Your task to perform on an android device: turn off wifi Image 0: 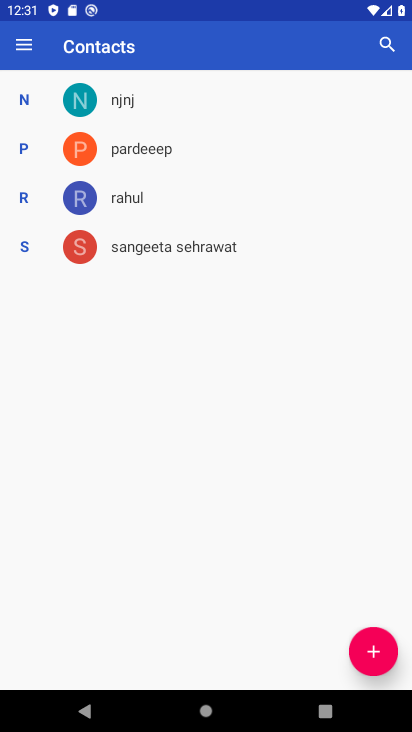
Step 0: press home button
Your task to perform on an android device: turn off wifi Image 1: 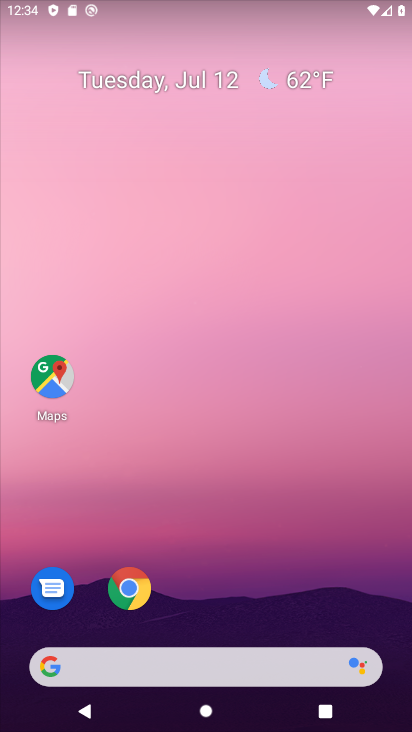
Step 1: drag from (143, 642) to (157, 9)
Your task to perform on an android device: turn off wifi Image 2: 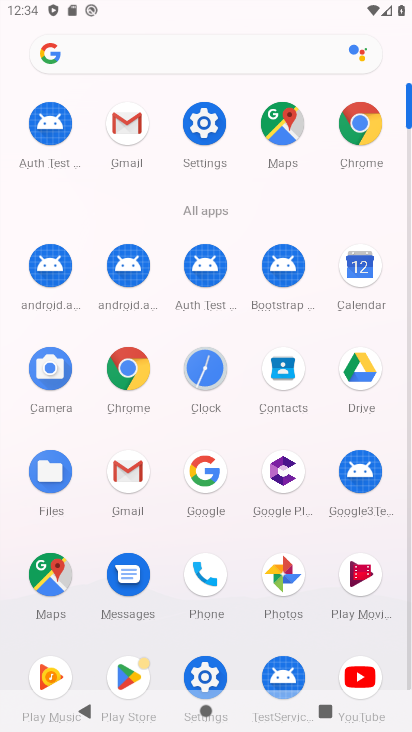
Step 2: click (234, 123)
Your task to perform on an android device: turn off wifi Image 3: 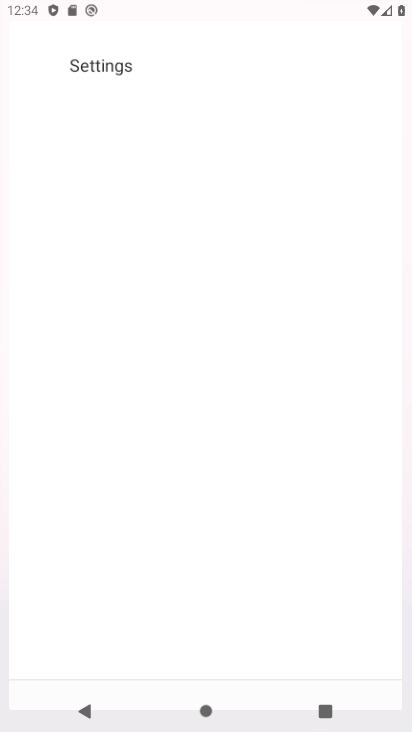
Step 3: click (213, 127)
Your task to perform on an android device: turn off wifi Image 4: 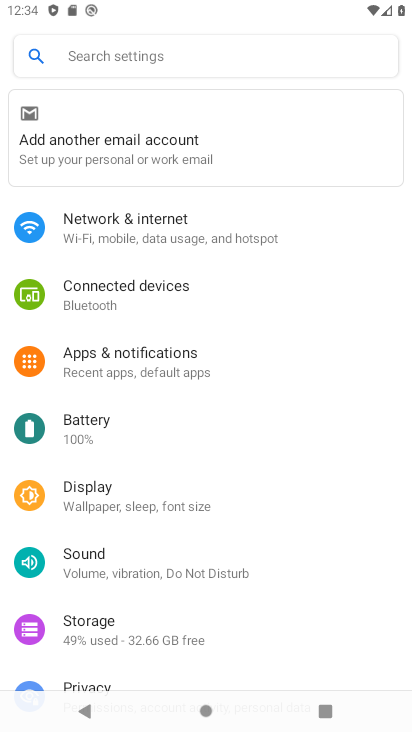
Step 4: click (191, 225)
Your task to perform on an android device: turn off wifi Image 5: 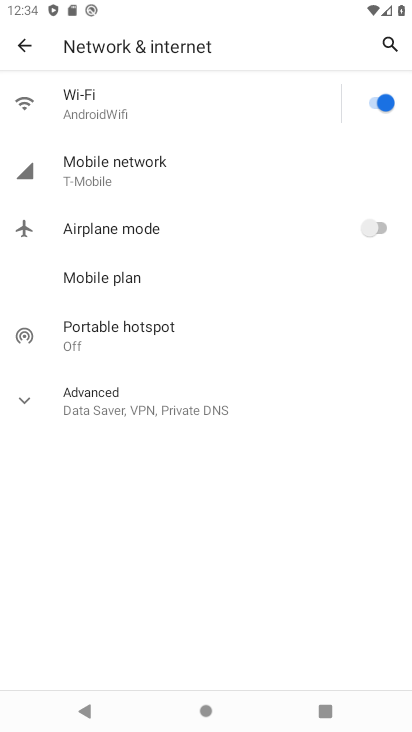
Step 5: click (387, 104)
Your task to perform on an android device: turn off wifi Image 6: 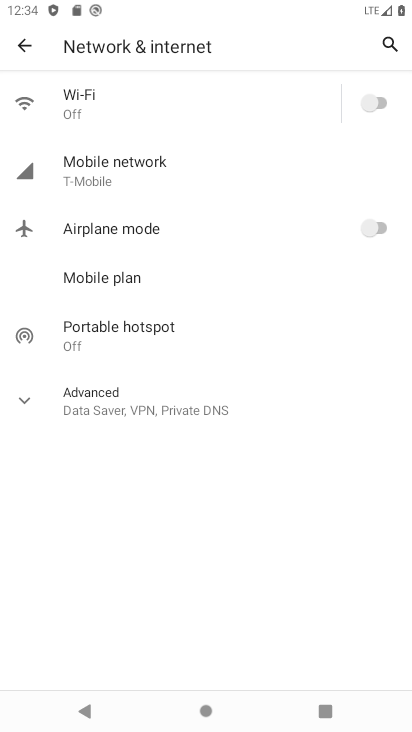
Step 6: task complete